Your task to perform on an android device: Is it going to rain tomorrow? Image 0: 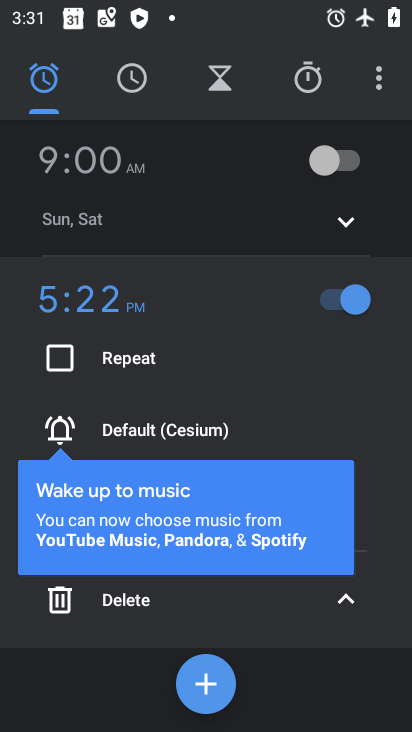
Step 0: press home button
Your task to perform on an android device: Is it going to rain tomorrow? Image 1: 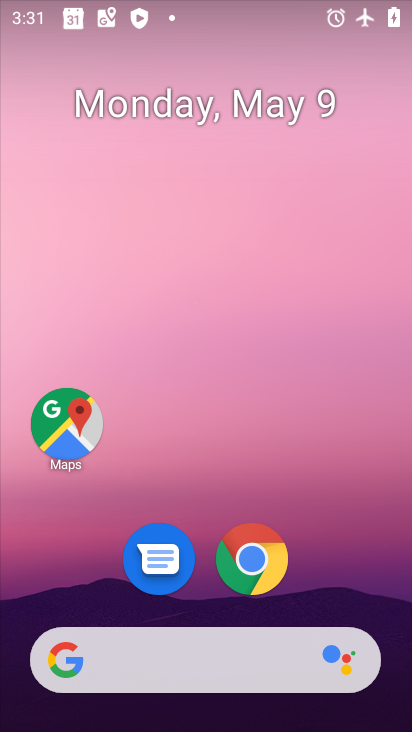
Step 1: drag from (212, 730) to (212, 469)
Your task to perform on an android device: Is it going to rain tomorrow? Image 2: 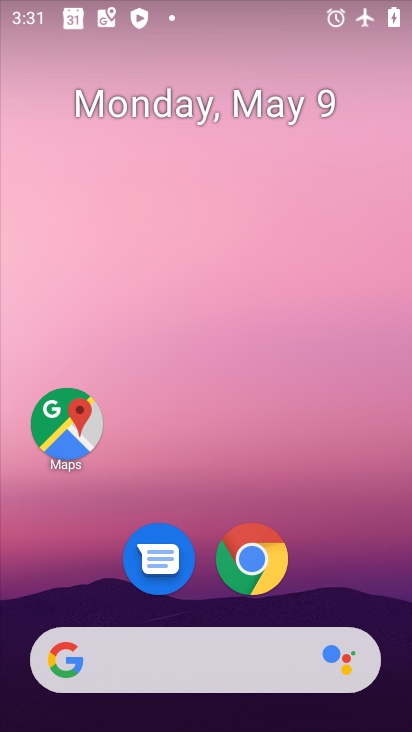
Step 2: drag from (193, 730) to (195, 127)
Your task to perform on an android device: Is it going to rain tomorrow? Image 3: 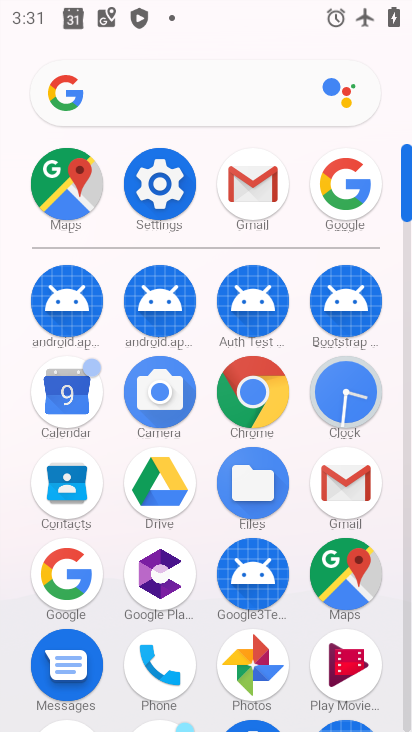
Step 3: click (66, 572)
Your task to perform on an android device: Is it going to rain tomorrow? Image 4: 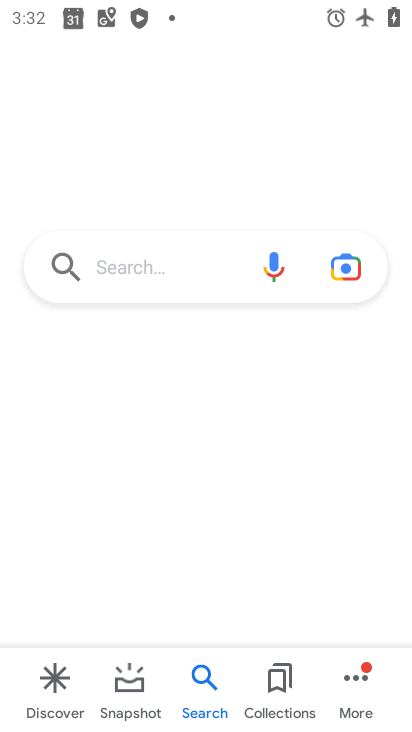
Step 4: click (161, 265)
Your task to perform on an android device: Is it going to rain tomorrow? Image 5: 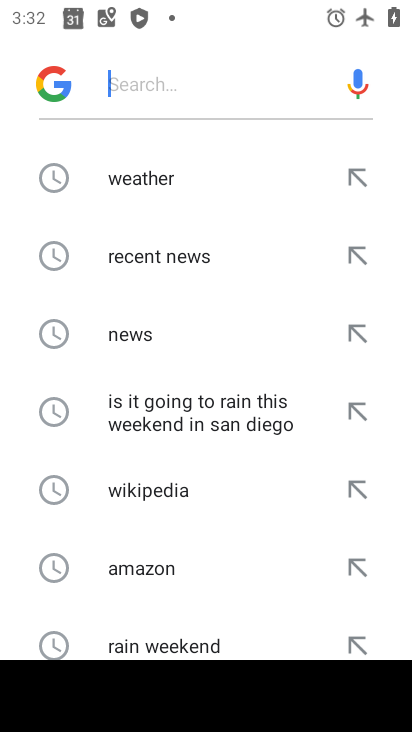
Step 5: click (140, 177)
Your task to perform on an android device: Is it going to rain tomorrow? Image 6: 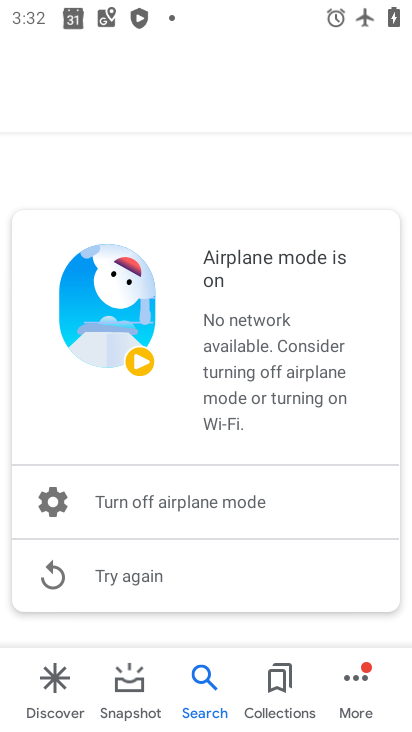
Step 6: task complete